Your task to perform on an android device: Find coffee shops on Maps Image 0: 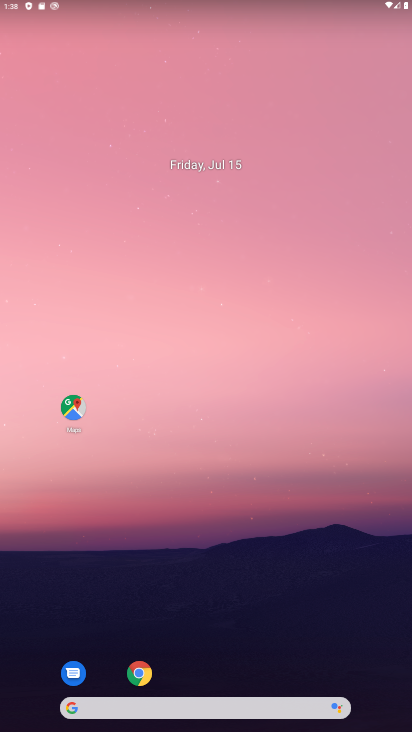
Step 0: drag from (217, 687) to (337, 229)
Your task to perform on an android device: Find coffee shops on Maps Image 1: 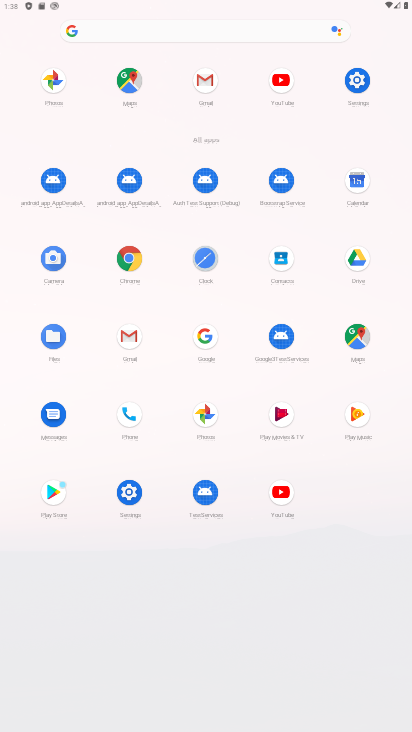
Step 1: click (356, 340)
Your task to perform on an android device: Find coffee shops on Maps Image 2: 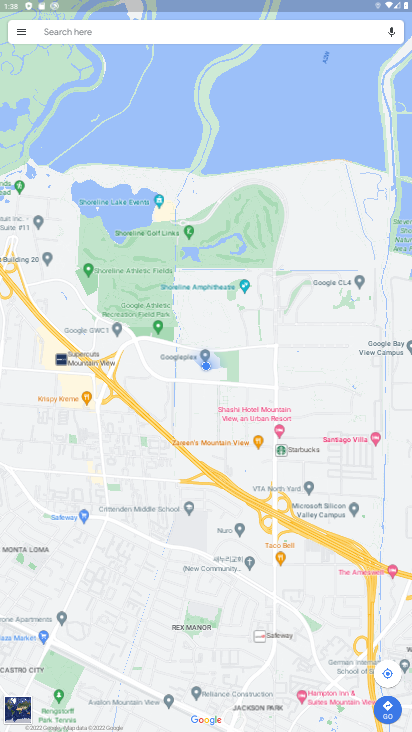
Step 2: click (107, 36)
Your task to perform on an android device: Find coffee shops on Maps Image 3: 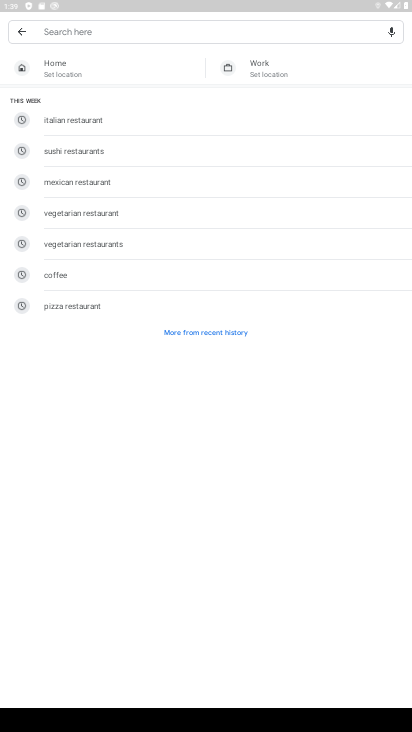
Step 3: type "Coffee shops"
Your task to perform on an android device: Find coffee shops on Maps Image 4: 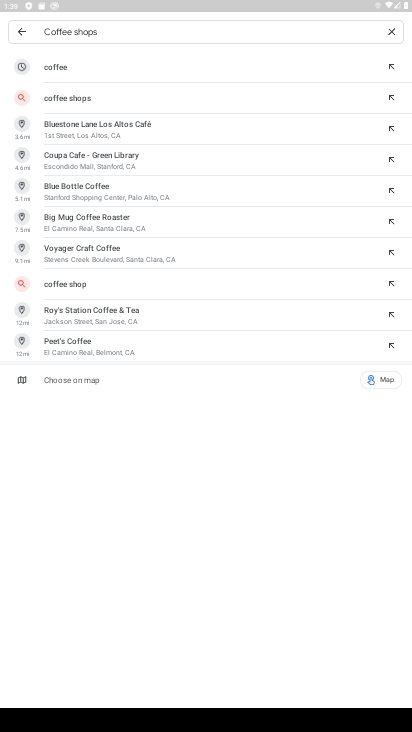
Step 4: click (212, 101)
Your task to perform on an android device: Find coffee shops on Maps Image 5: 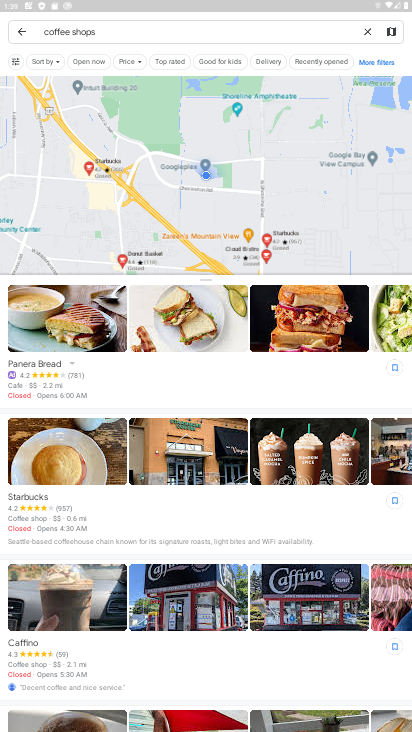
Step 5: task complete